Your task to perform on an android device: change notifications settings Image 0: 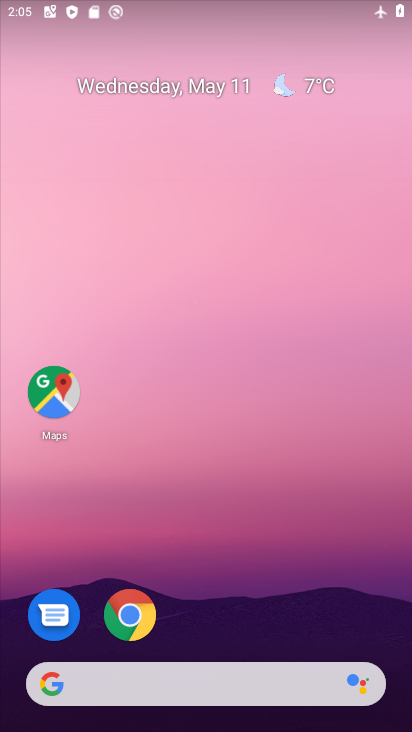
Step 0: drag from (261, 609) to (318, 123)
Your task to perform on an android device: change notifications settings Image 1: 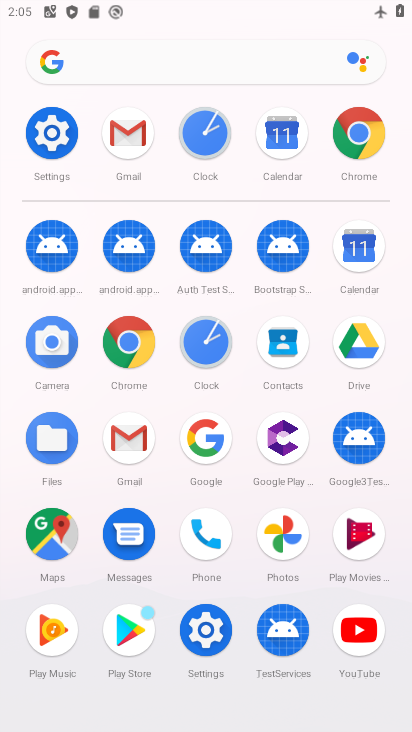
Step 1: click (59, 129)
Your task to perform on an android device: change notifications settings Image 2: 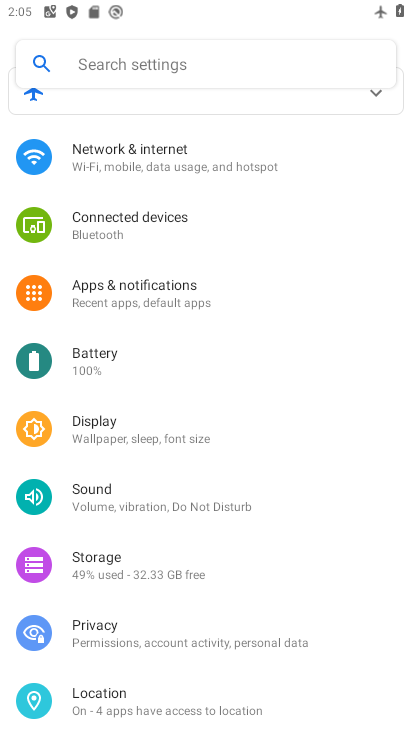
Step 2: click (136, 284)
Your task to perform on an android device: change notifications settings Image 3: 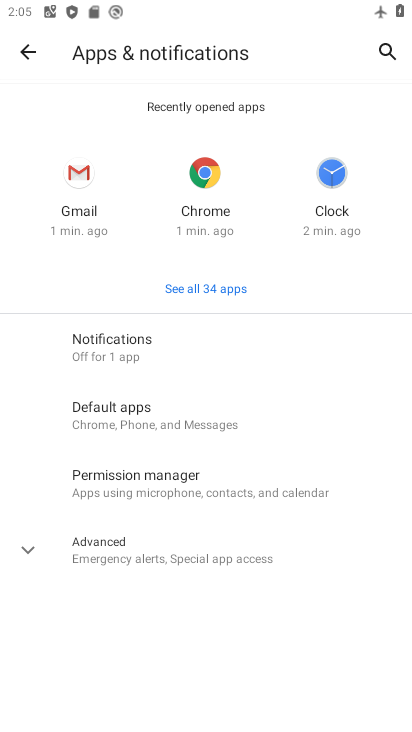
Step 3: click (128, 342)
Your task to perform on an android device: change notifications settings Image 4: 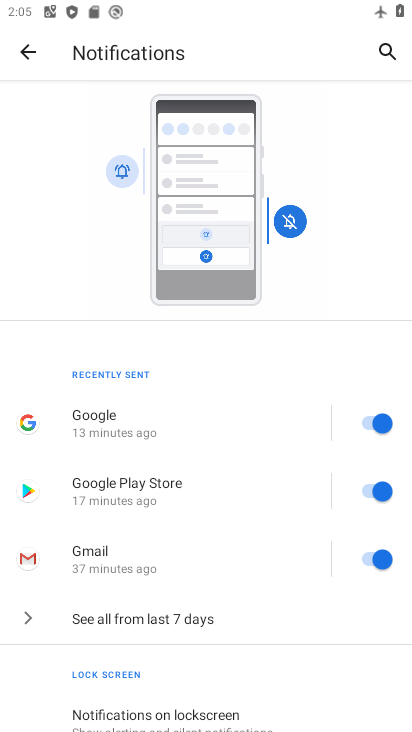
Step 4: task complete